Your task to perform on an android device: turn pop-ups off in chrome Image 0: 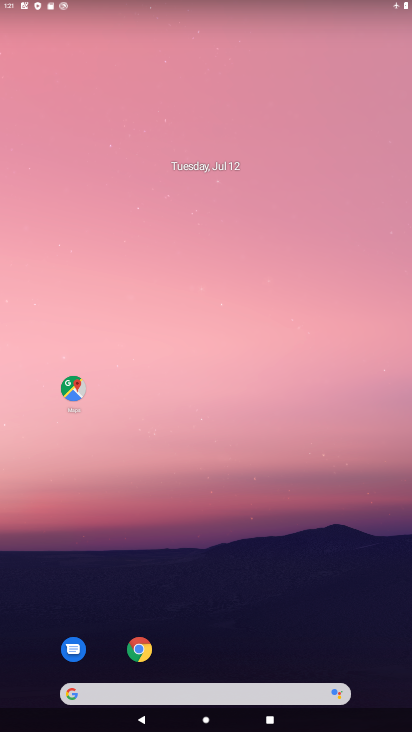
Step 0: click (139, 649)
Your task to perform on an android device: turn pop-ups off in chrome Image 1: 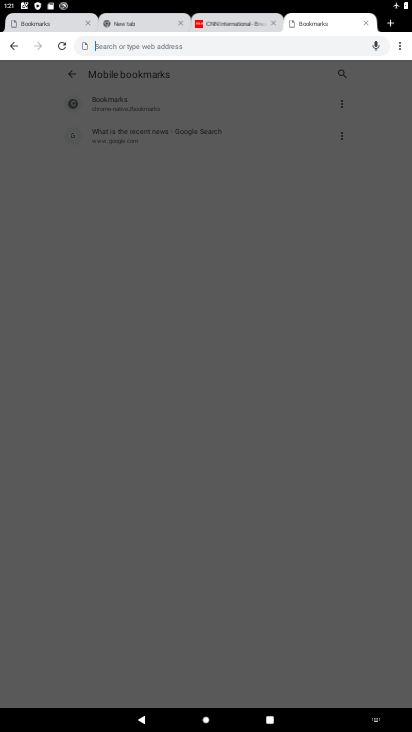
Step 1: click (389, 48)
Your task to perform on an android device: turn pop-ups off in chrome Image 2: 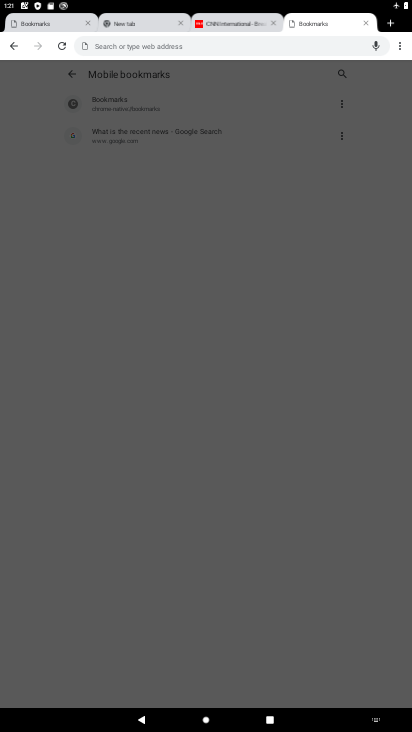
Step 2: click (399, 51)
Your task to perform on an android device: turn pop-ups off in chrome Image 3: 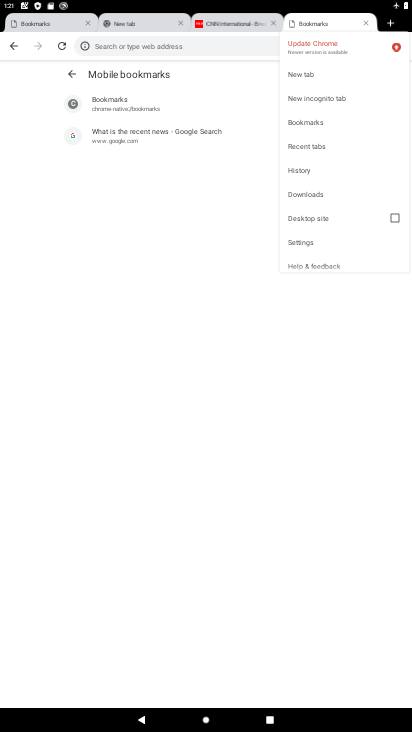
Step 3: click (332, 241)
Your task to perform on an android device: turn pop-ups off in chrome Image 4: 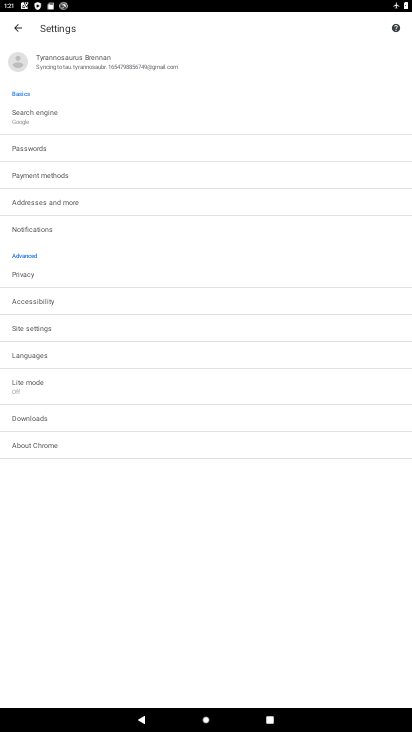
Step 4: click (126, 327)
Your task to perform on an android device: turn pop-ups off in chrome Image 5: 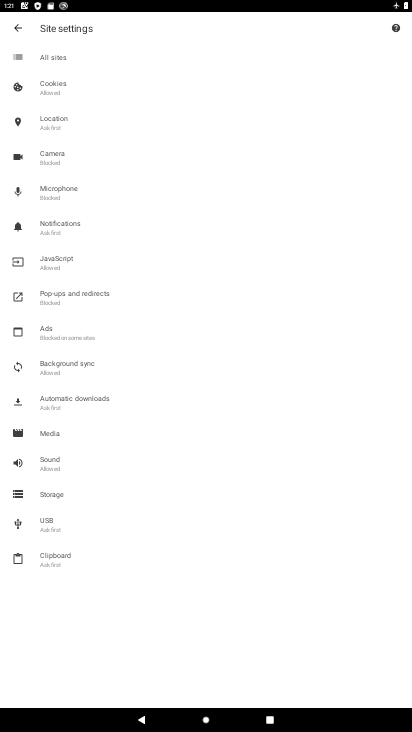
Step 5: task complete